Your task to perform on an android device: Go to ESPN.com Image 0: 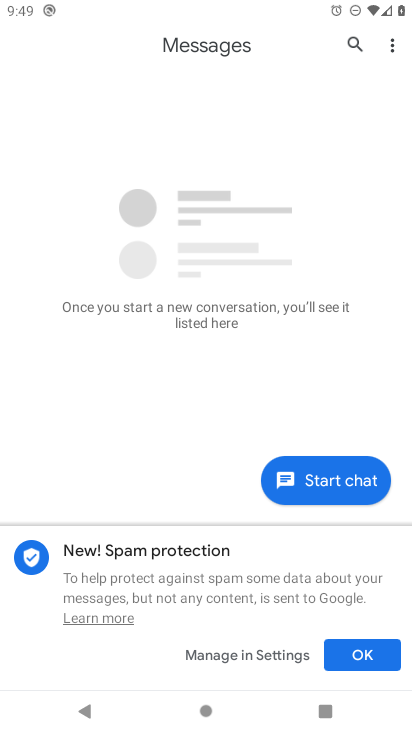
Step 0: press home button
Your task to perform on an android device: Go to ESPN.com Image 1: 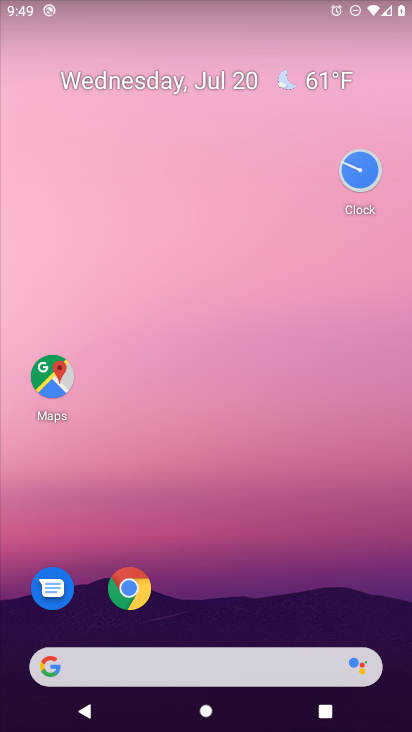
Step 1: click (158, 673)
Your task to perform on an android device: Go to ESPN.com Image 2: 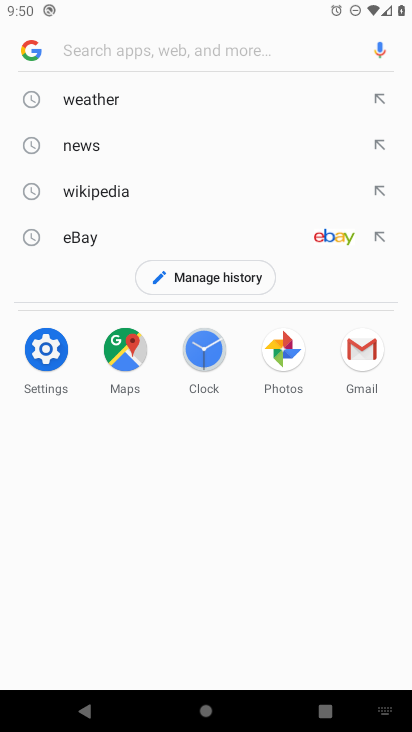
Step 2: type " ESPN.com"
Your task to perform on an android device: Go to ESPN.com Image 3: 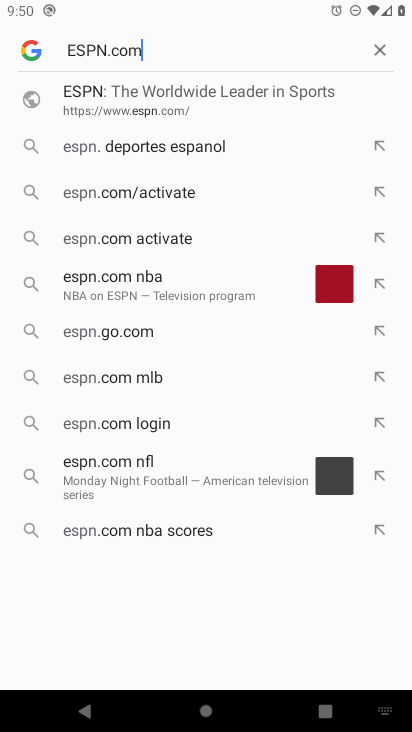
Step 3: type ""
Your task to perform on an android device: Go to ESPN.com Image 4: 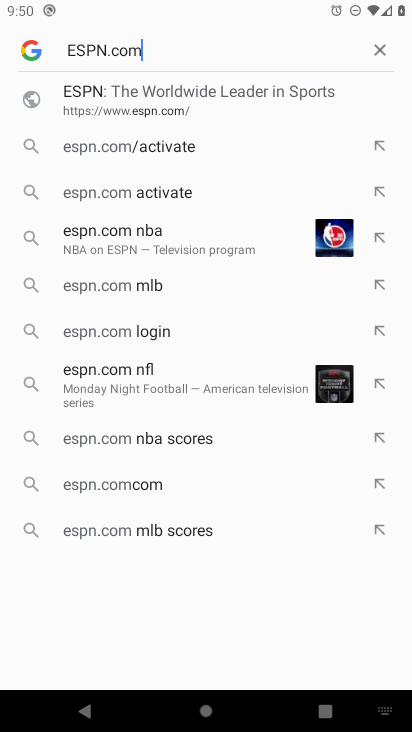
Step 4: type ""
Your task to perform on an android device: Go to ESPN.com Image 5: 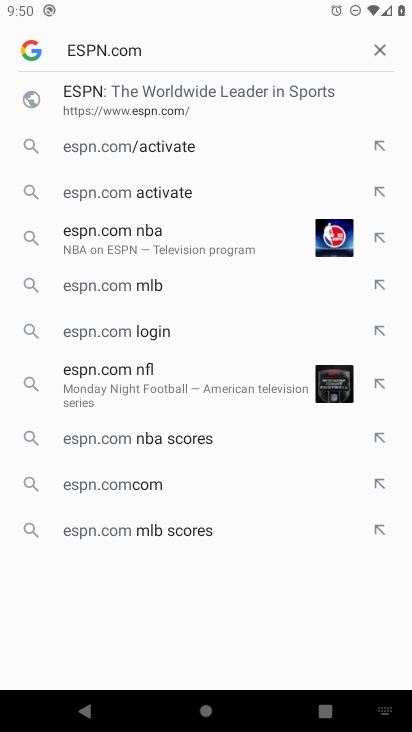
Step 5: task complete